Your task to perform on an android device: turn on wifi Image 0: 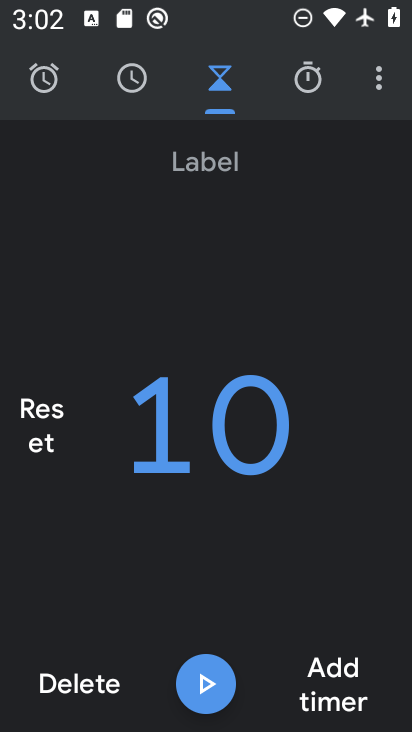
Step 0: press home button
Your task to perform on an android device: turn on wifi Image 1: 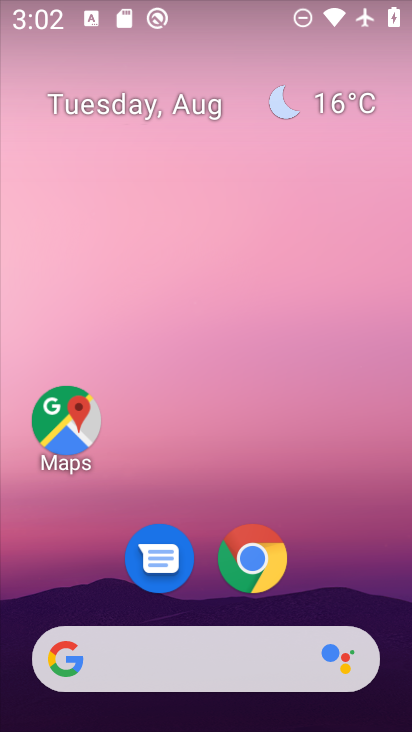
Step 1: drag from (193, 462) to (166, 57)
Your task to perform on an android device: turn on wifi Image 2: 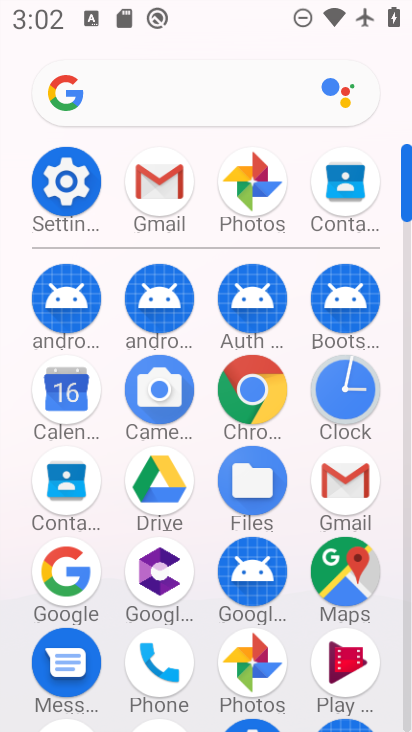
Step 2: click (51, 193)
Your task to perform on an android device: turn on wifi Image 3: 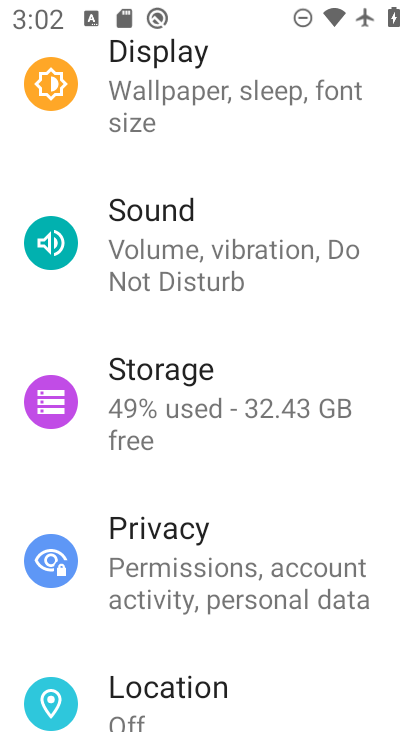
Step 3: drag from (202, 159) to (237, 617)
Your task to perform on an android device: turn on wifi Image 4: 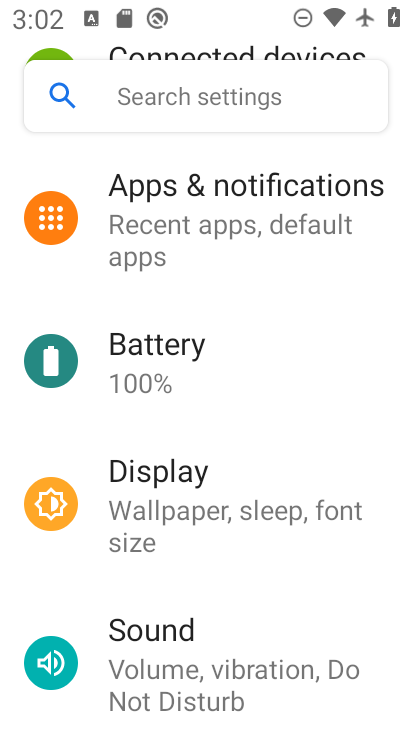
Step 4: drag from (235, 263) to (246, 598)
Your task to perform on an android device: turn on wifi Image 5: 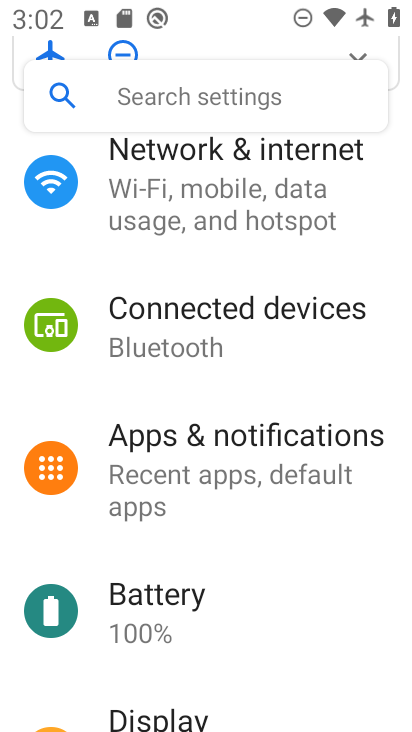
Step 5: click (207, 178)
Your task to perform on an android device: turn on wifi Image 6: 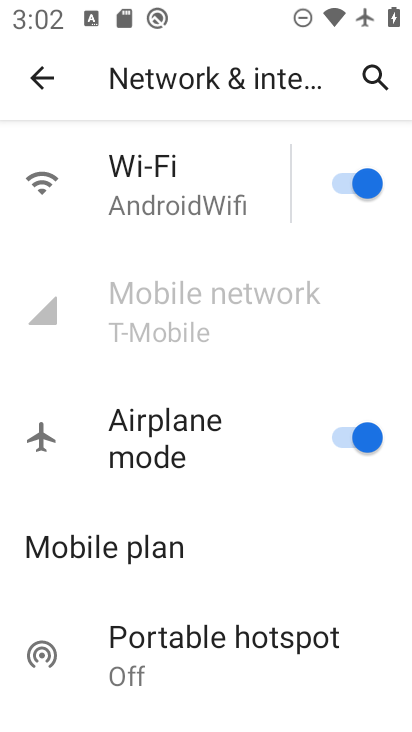
Step 6: task complete